Your task to perform on an android device: empty trash in google photos Image 0: 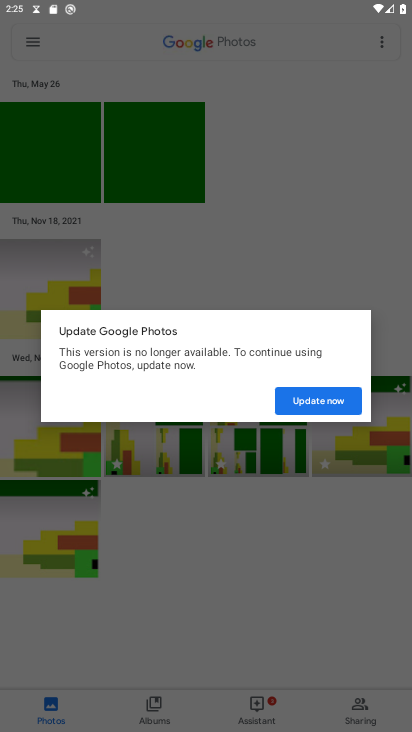
Step 0: drag from (210, 659) to (214, 463)
Your task to perform on an android device: empty trash in google photos Image 1: 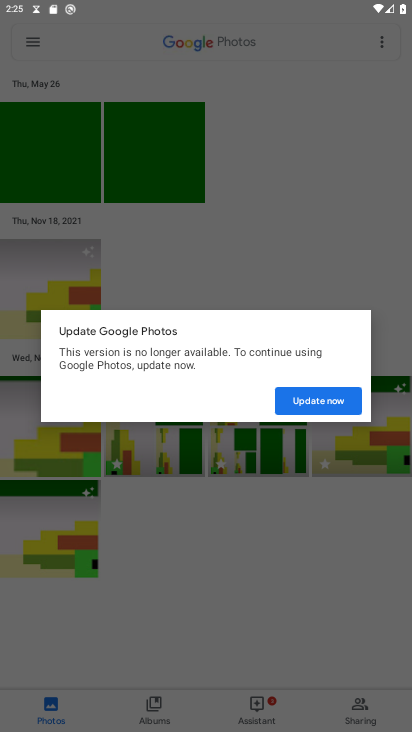
Step 1: drag from (217, 291) to (219, 235)
Your task to perform on an android device: empty trash in google photos Image 2: 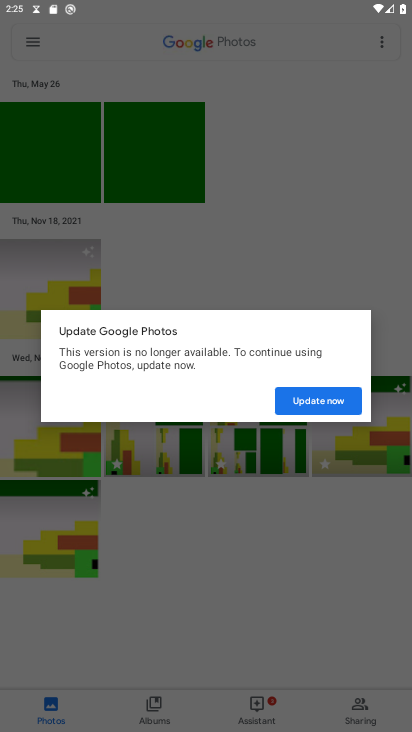
Step 2: click (323, 394)
Your task to perform on an android device: empty trash in google photos Image 3: 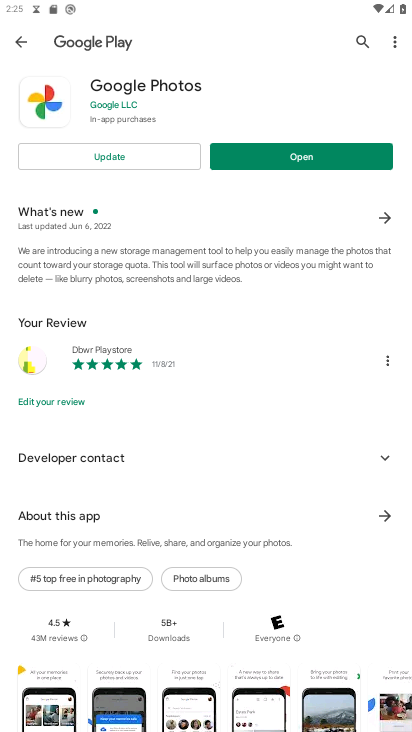
Step 3: click (127, 151)
Your task to perform on an android device: empty trash in google photos Image 4: 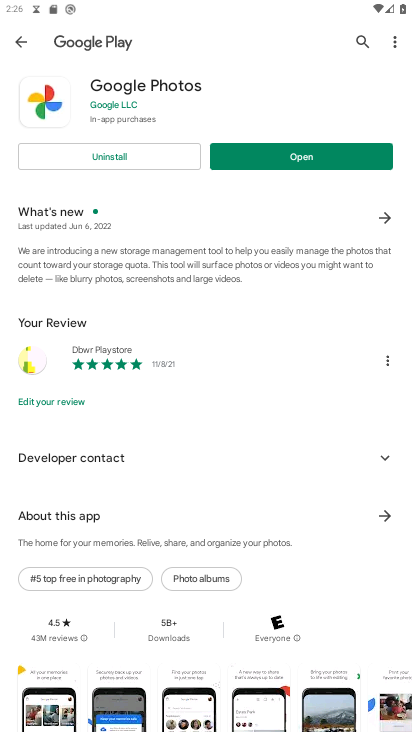
Step 4: click (304, 158)
Your task to perform on an android device: empty trash in google photos Image 5: 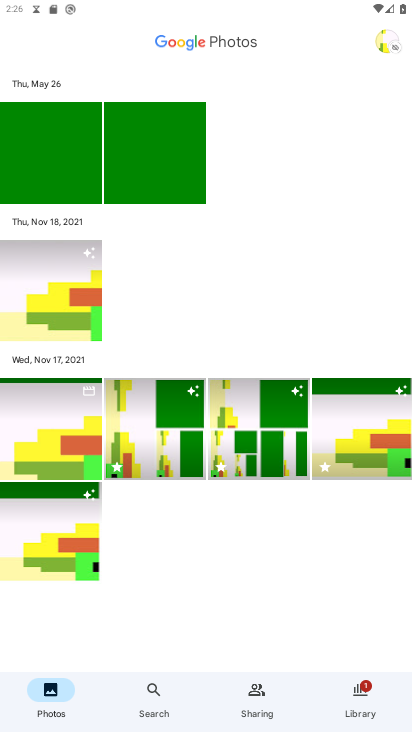
Step 5: click (360, 694)
Your task to perform on an android device: empty trash in google photos Image 6: 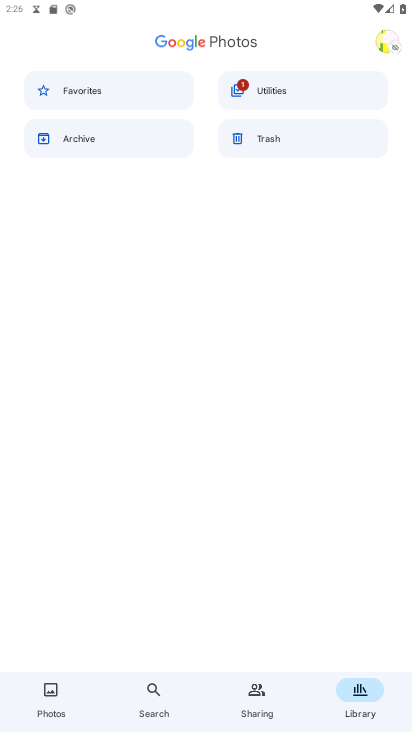
Step 6: click (276, 137)
Your task to perform on an android device: empty trash in google photos Image 7: 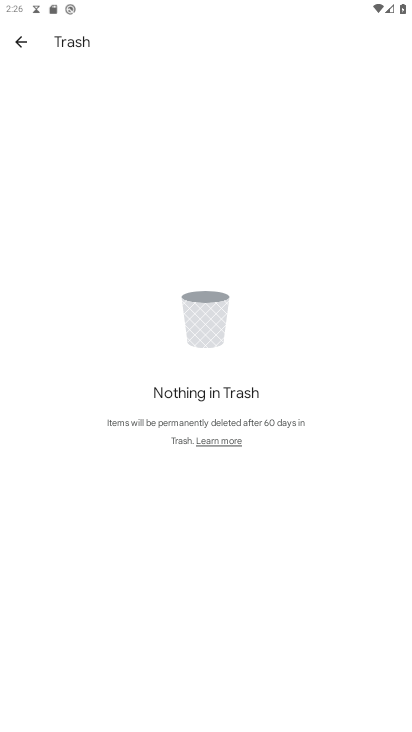
Step 7: task complete